Your task to perform on an android device: open sync settings in chrome Image 0: 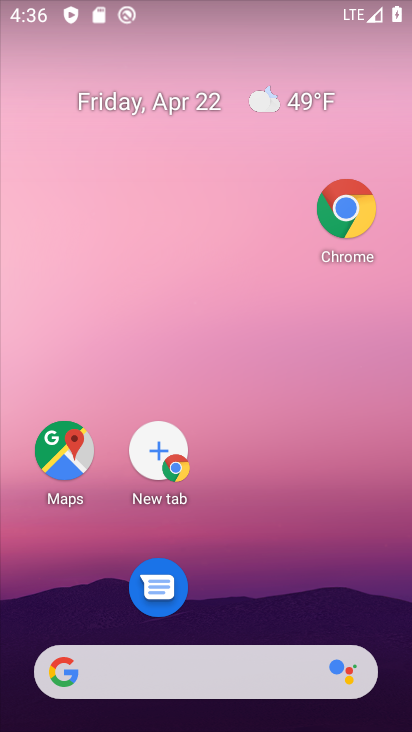
Step 0: click (346, 216)
Your task to perform on an android device: open sync settings in chrome Image 1: 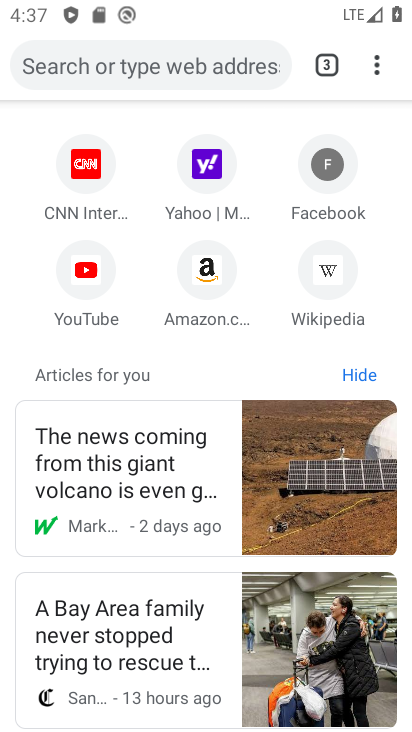
Step 1: click (371, 85)
Your task to perform on an android device: open sync settings in chrome Image 2: 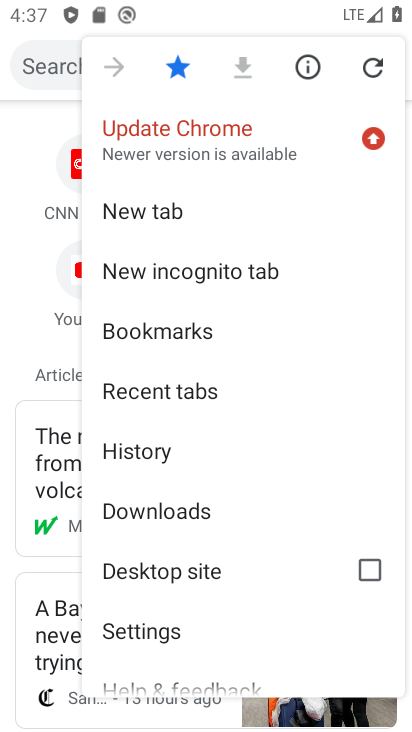
Step 2: click (172, 612)
Your task to perform on an android device: open sync settings in chrome Image 3: 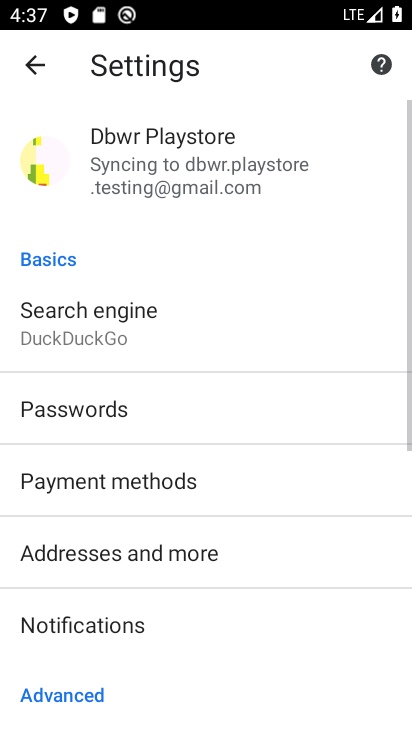
Step 3: drag from (172, 612) to (167, 423)
Your task to perform on an android device: open sync settings in chrome Image 4: 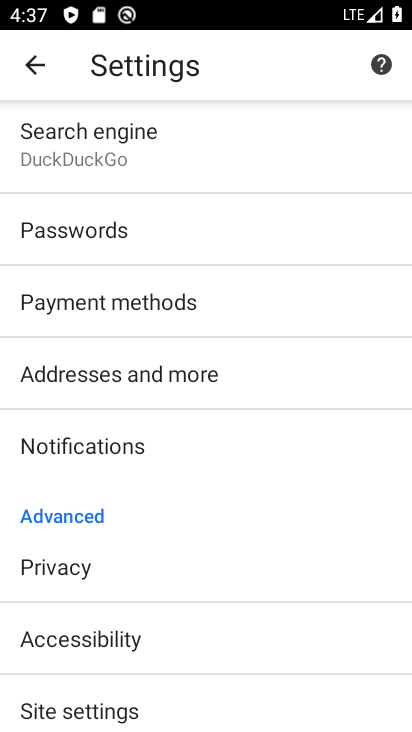
Step 4: drag from (74, 655) to (173, 243)
Your task to perform on an android device: open sync settings in chrome Image 5: 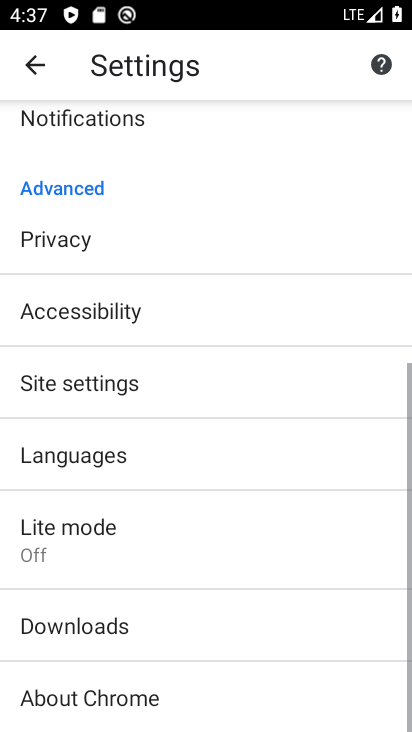
Step 5: drag from (173, 243) to (152, 712)
Your task to perform on an android device: open sync settings in chrome Image 6: 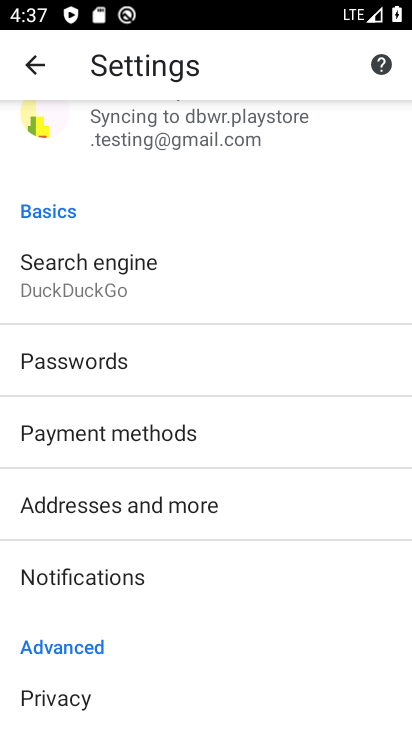
Step 6: click (174, 130)
Your task to perform on an android device: open sync settings in chrome Image 7: 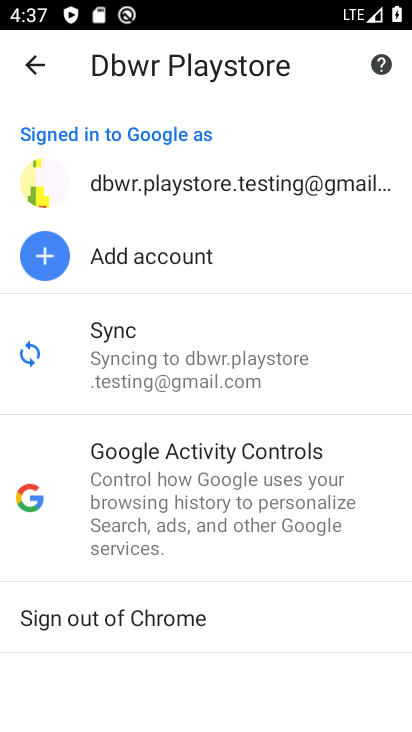
Step 7: click (159, 366)
Your task to perform on an android device: open sync settings in chrome Image 8: 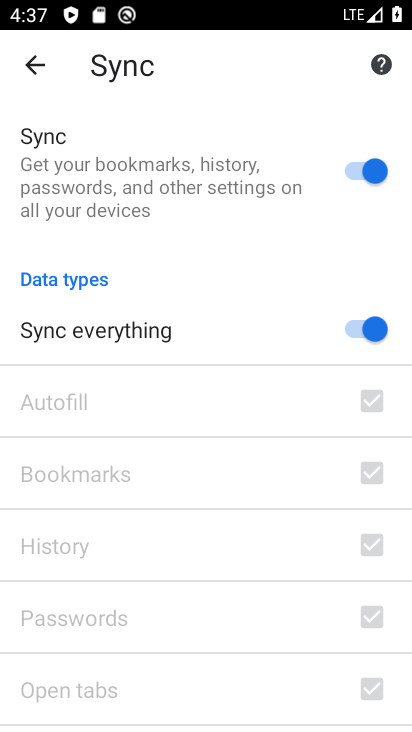
Step 8: task complete